Your task to perform on an android device: turn off improve location accuracy Image 0: 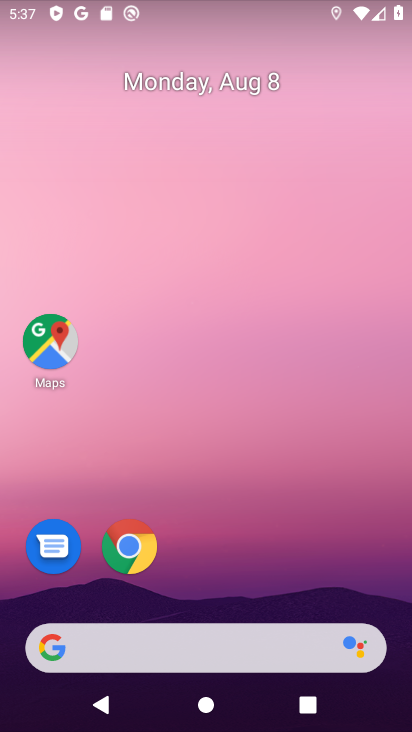
Step 0: click (180, 80)
Your task to perform on an android device: turn off improve location accuracy Image 1: 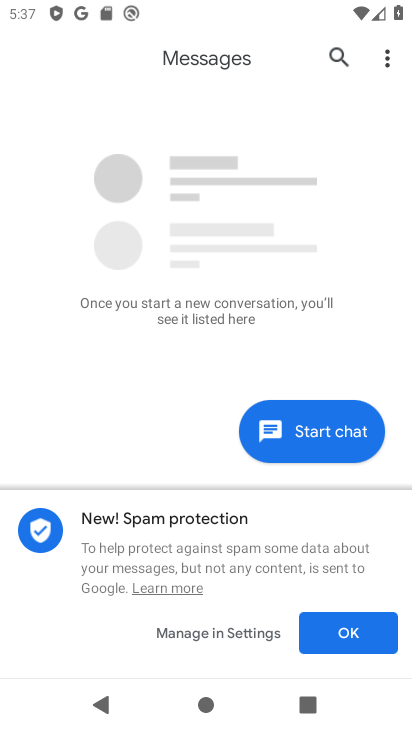
Step 1: press home button
Your task to perform on an android device: turn off improve location accuracy Image 2: 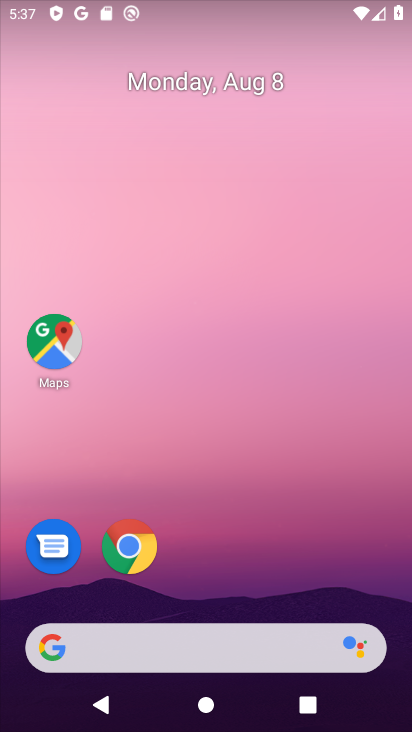
Step 2: drag from (231, 562) to (232, 184)
Your task to perform on an android device: turn off improve location accuracy Image 3: 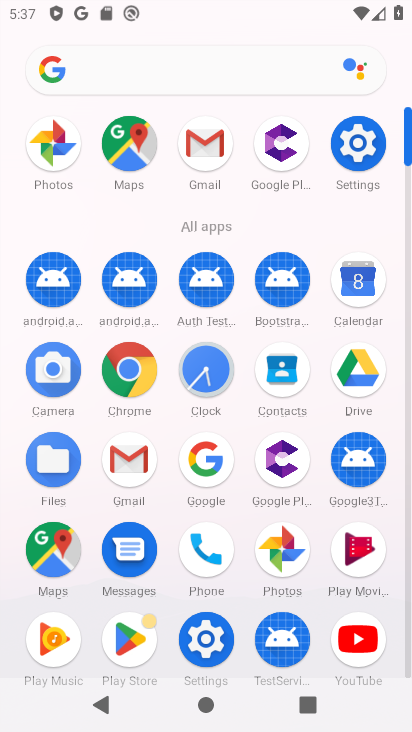
Step 3: click (371, 162)
Your task to perform on an android device: turn off improve location accuracy Image 4: 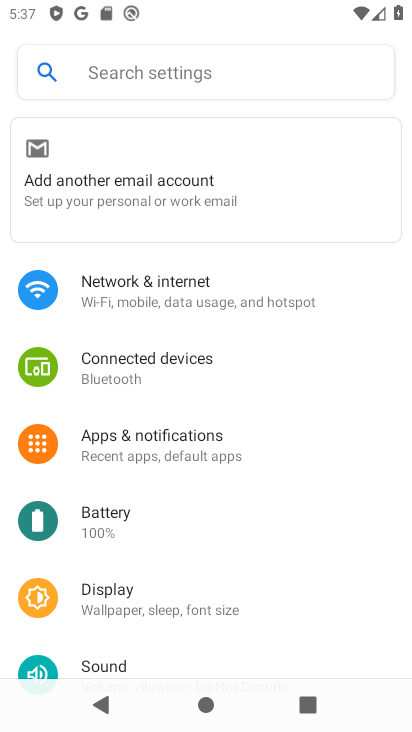
Step 4: drag from (215, 588) to (223, 304)
Your task to perform on an android device: turn off improve location accuracy Image 5: 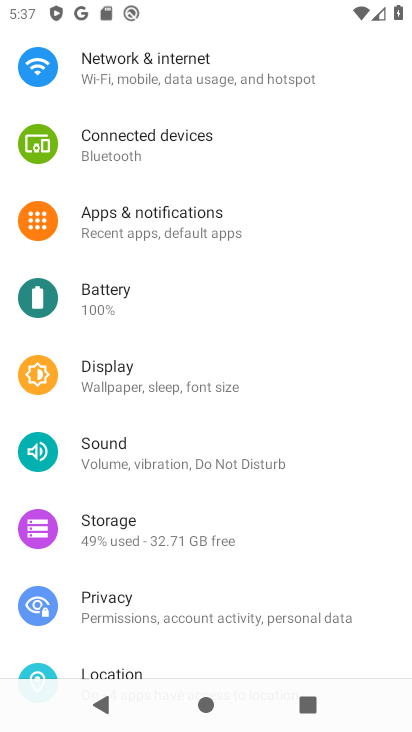
Step 5: drag from (187, 635) to (188, 352)
Your task to perform on an android device: turn off improve location accuracy Image 6: 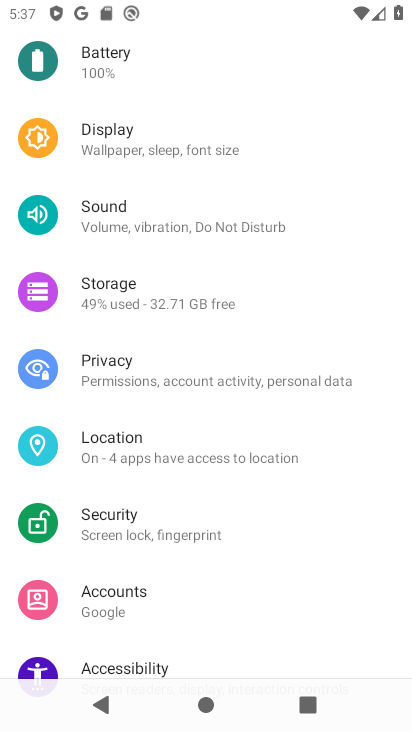
Step 6: click (125, 459)
Your task to perform on an android device: turn off improve location accuracy Image 7: 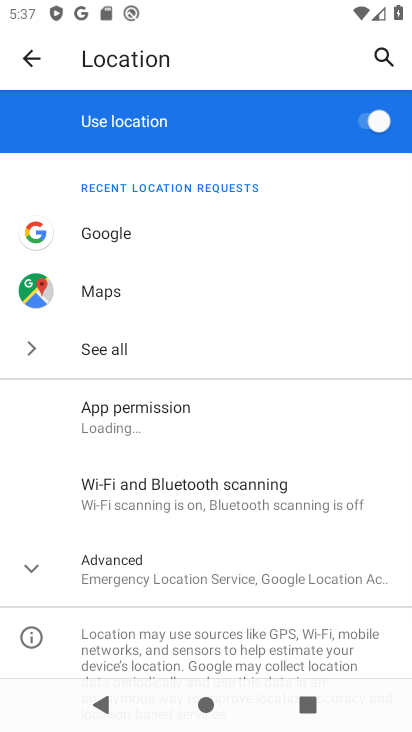
Step 7: click (168, 595)
Your task to perform on an android device: turn off improve location accuracy Image 8: 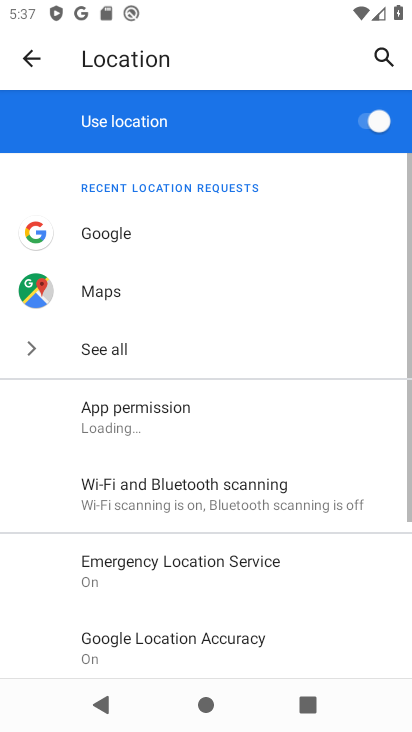
Step 8: drag from (278, 514) to (284, 354)
Your task to perform on an android device: turn off improve location accuracy Image 9: 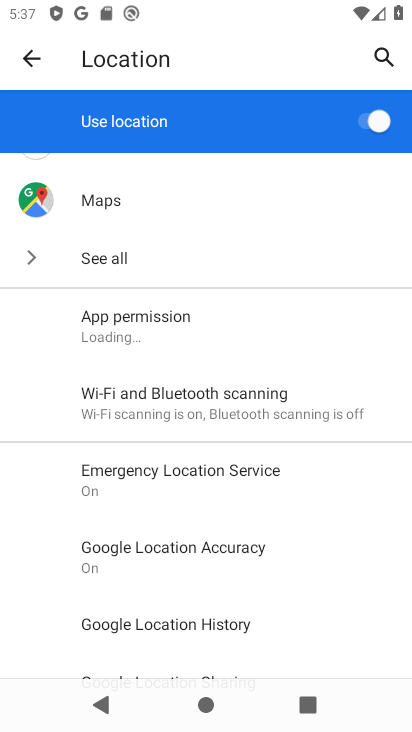
Step 9: click (243, 544)
Your task to perform on an android device: turn off improve location accuracy Image 10: 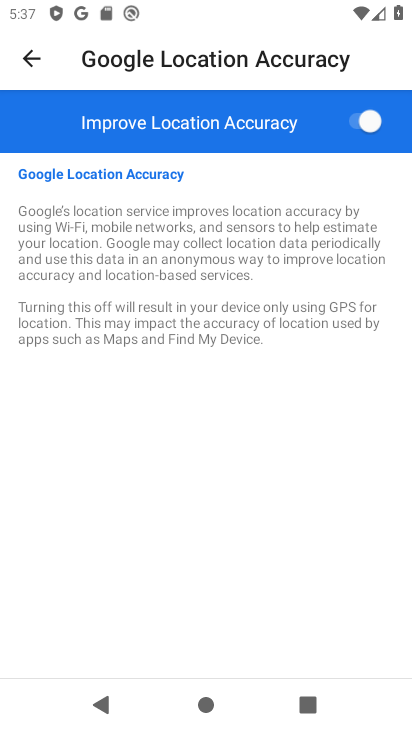
Step 10: click (354, 118)
Your task to perform on an android device: turn off improve location accuracy Image 11: 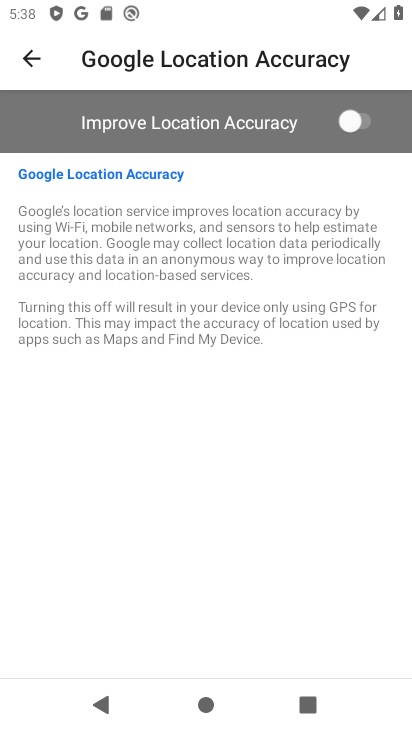
Step 11: task complete